Your task to perform on an android device: Open Google Maps Image 0: 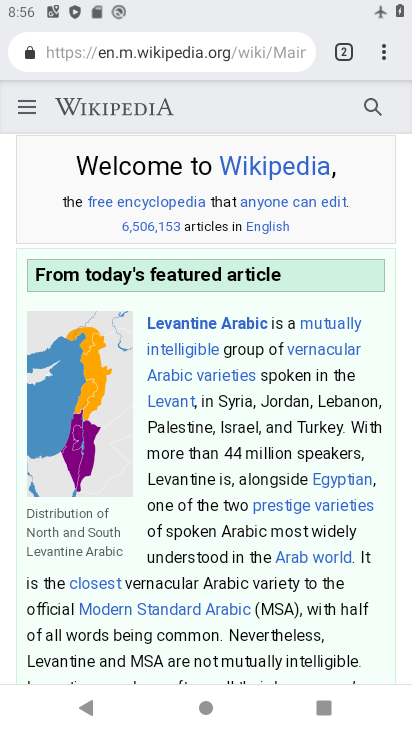
Step 0: press home button
Your task to perform on an android device: Open Google Maps Image 1: 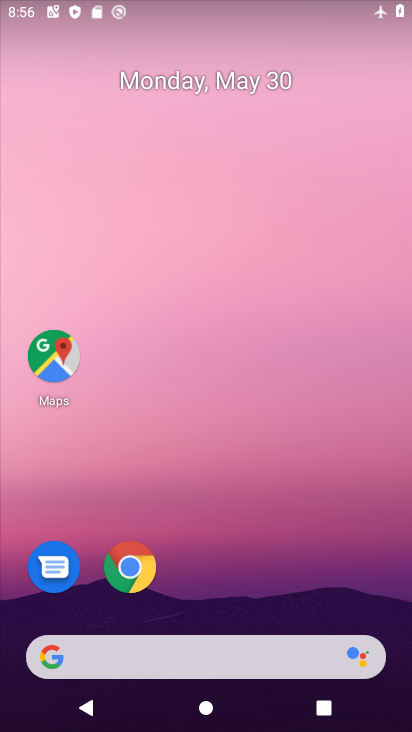
Step 1: click (47, 353)
Your task to perform on an android device: Open Google Maps Image 2: 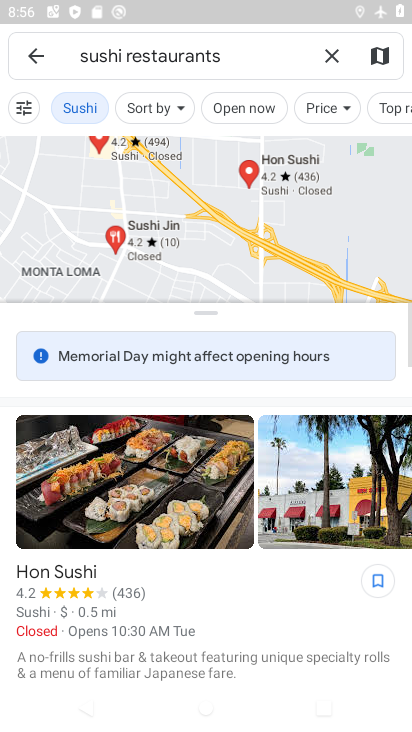
Step 2: task complete